Your task to perform on an android device: read, delete, or share a saved page in the chrome app Image 0: 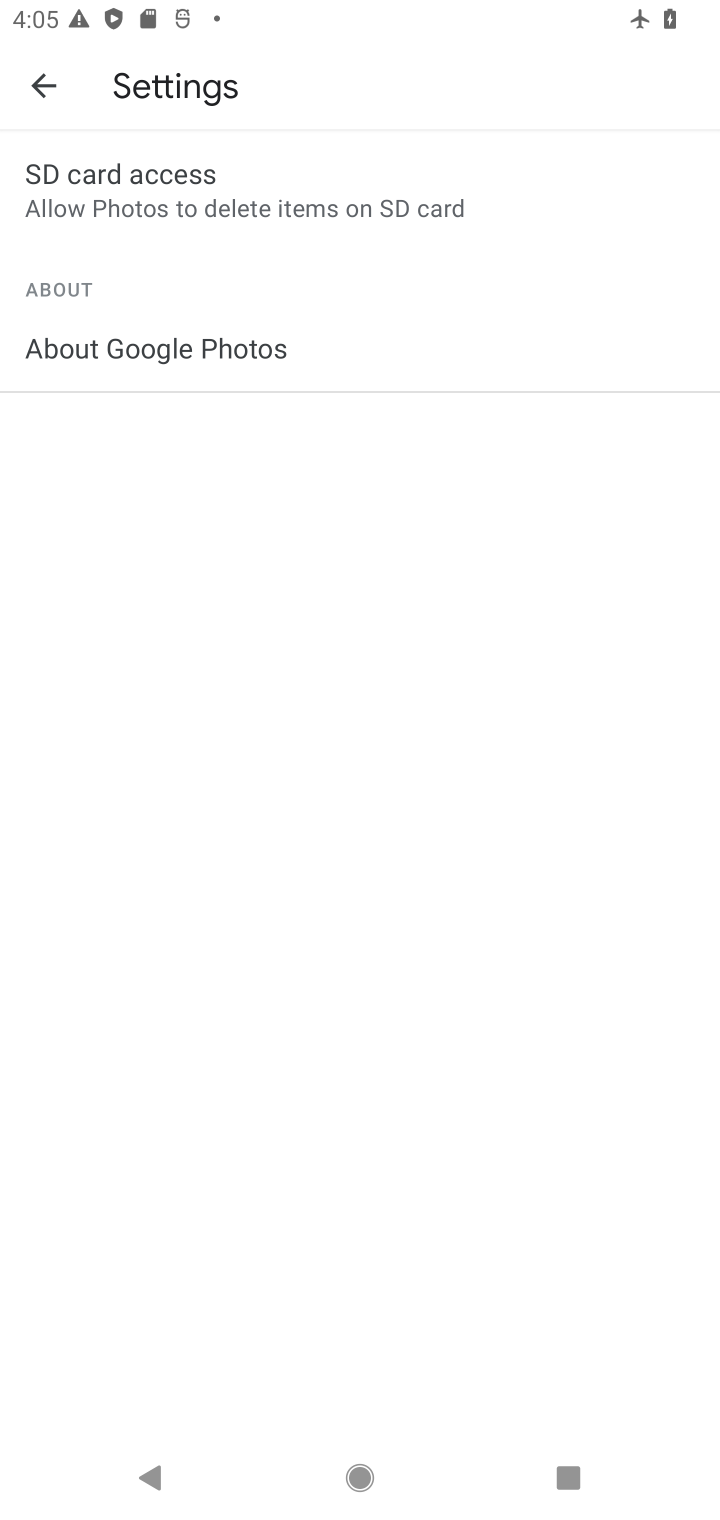
Step 0: press home button
Your task to perform on an android device: read, delete, or share a saved page in the chrome app Image 1: 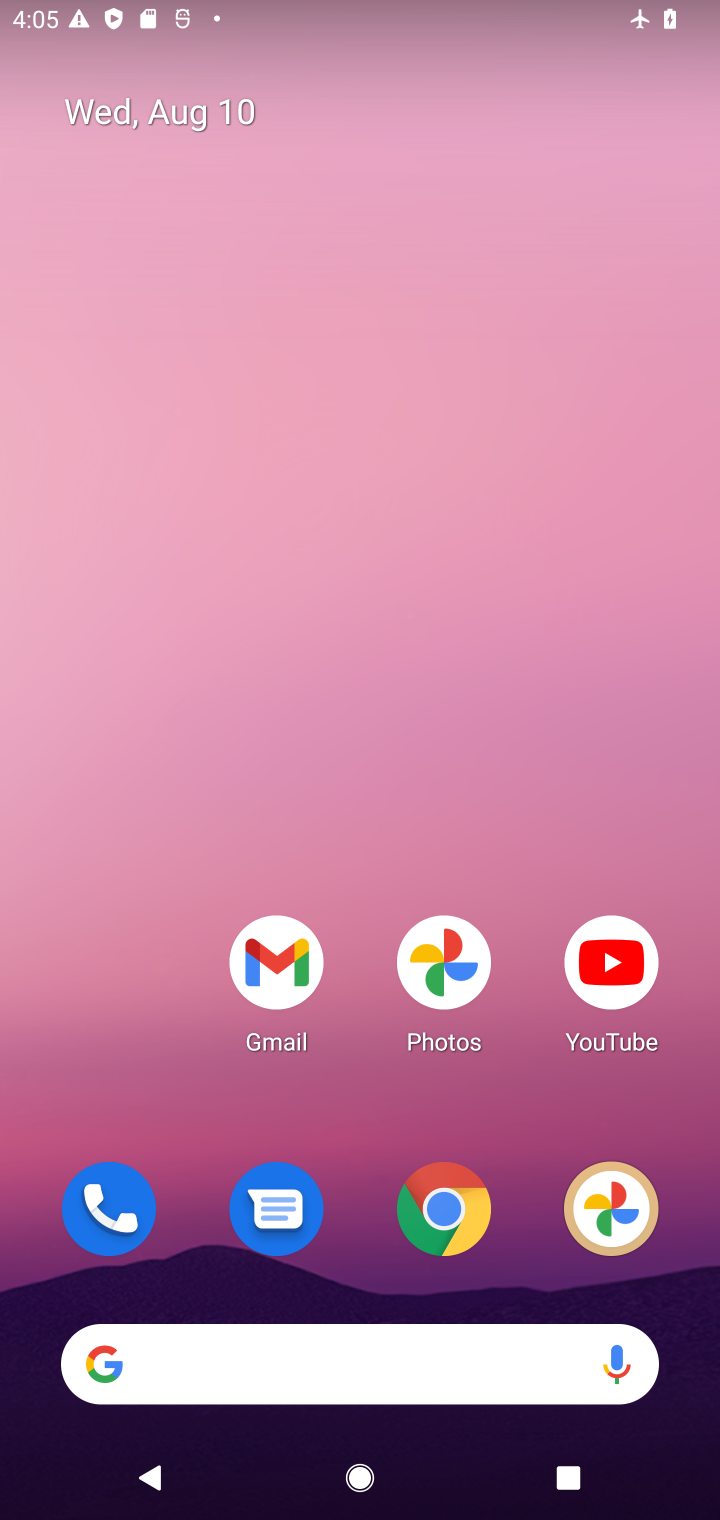
Step 1: click (435, 1211)
Your task to perform on an android device: read, delete, or share a saved page in the chrome app Image 2: 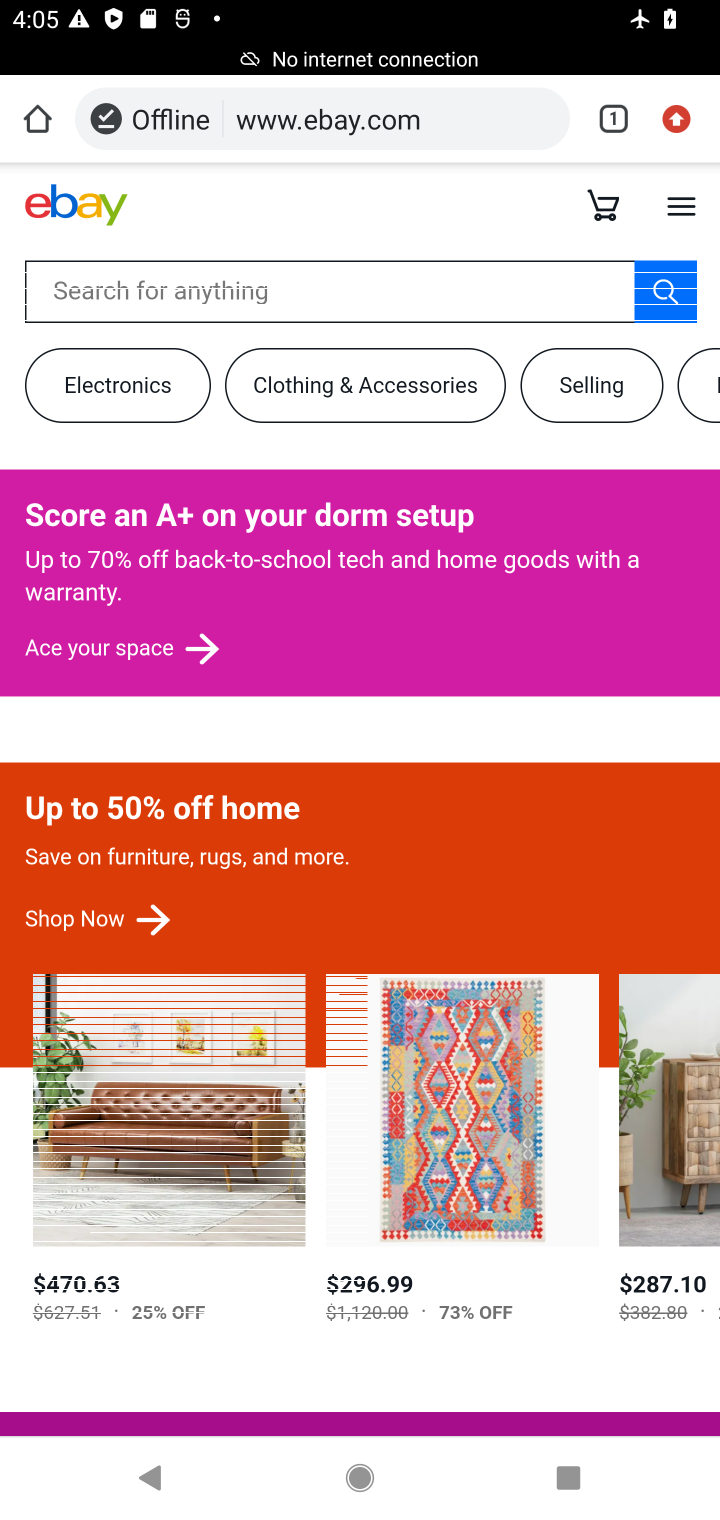
Step 2: click (686, 81)
Your task to perform on an android device: read, delete, or share a saved page in the chrome app Image 3: 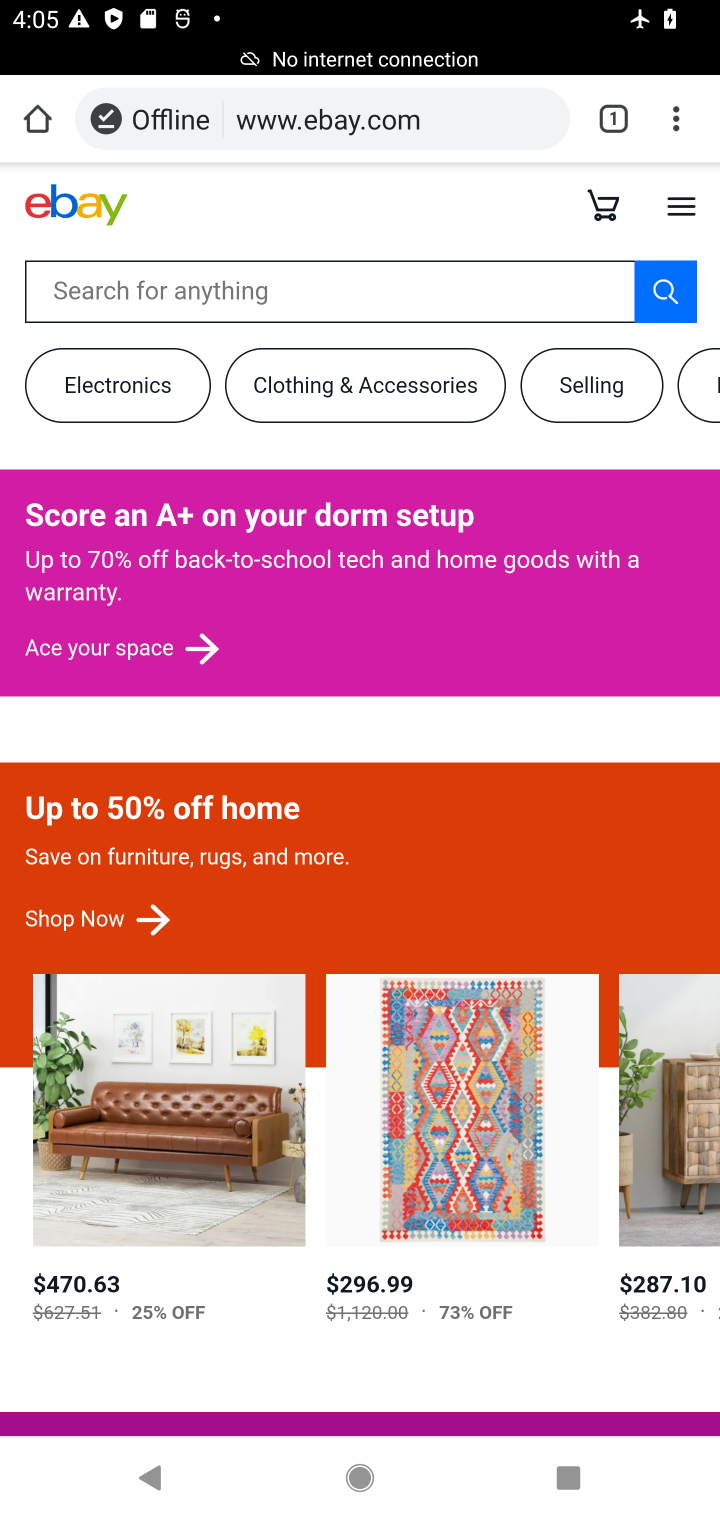
Step 3: click (663, 128)
Your task to perform on an android device: read, delete, or share a saved page in the chrome app Image 4: 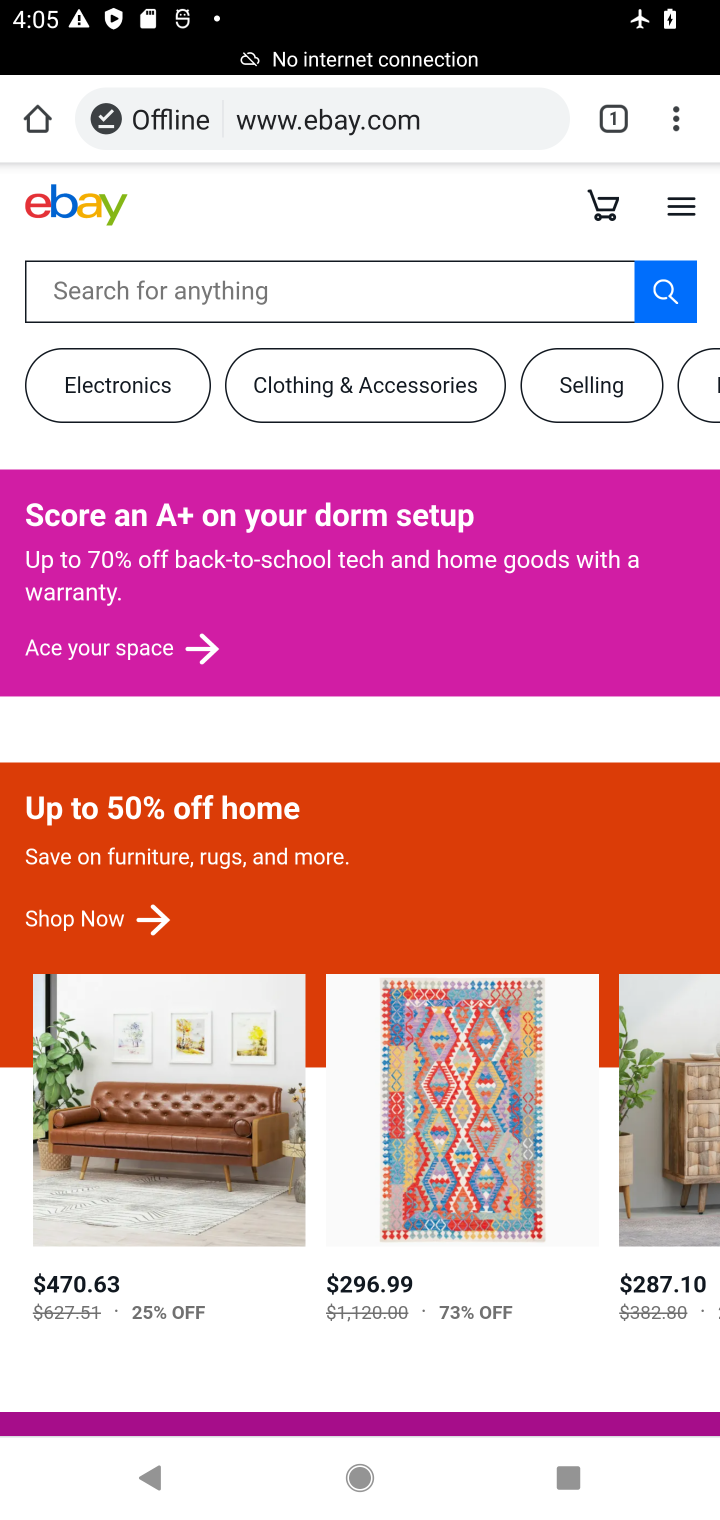
Step 4: click (683, 115)
Your task to perform on an android device: read, delete, or share a saved page in the chrome app Image 5: 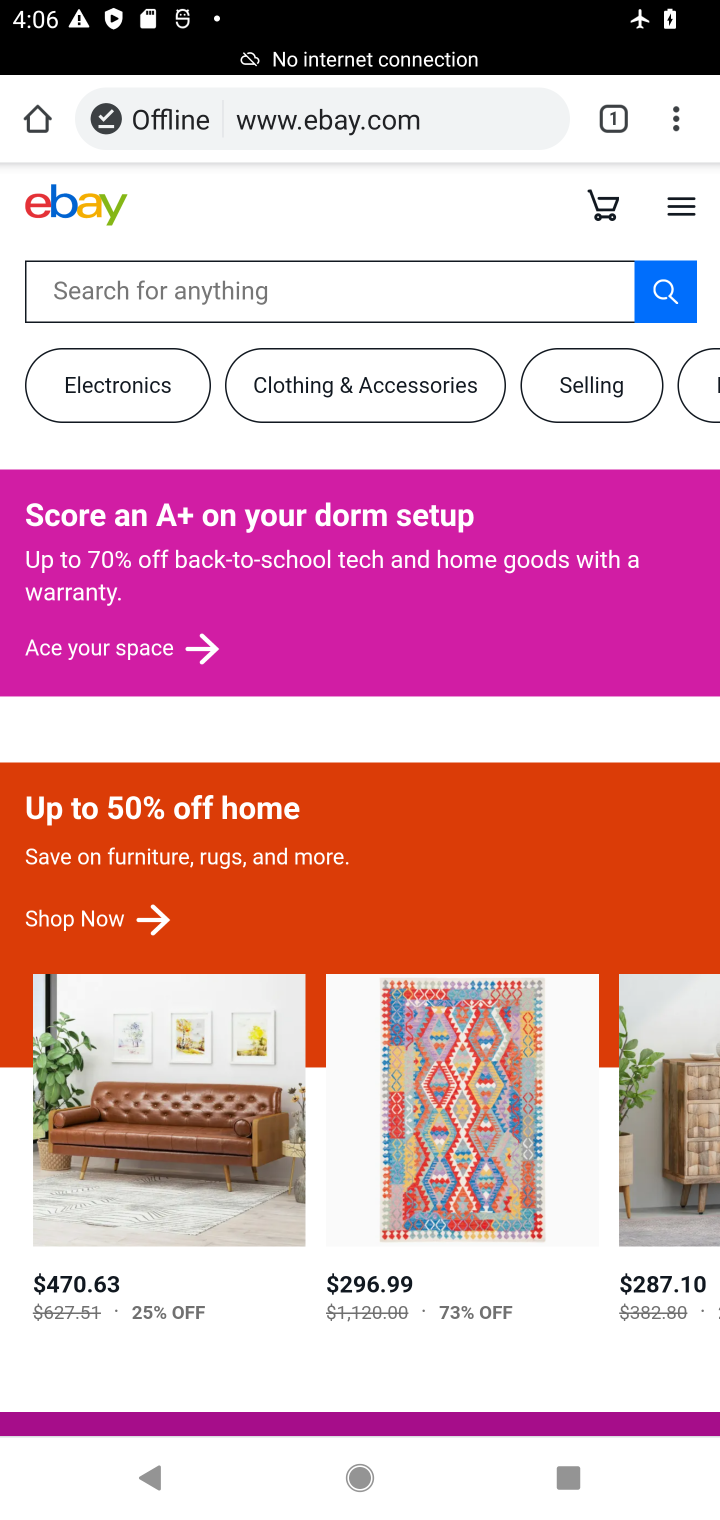
Step 5: click (683, 115)
Your task to perform on an android device: read, delete, or share a saved page in the chrome app Image 6: 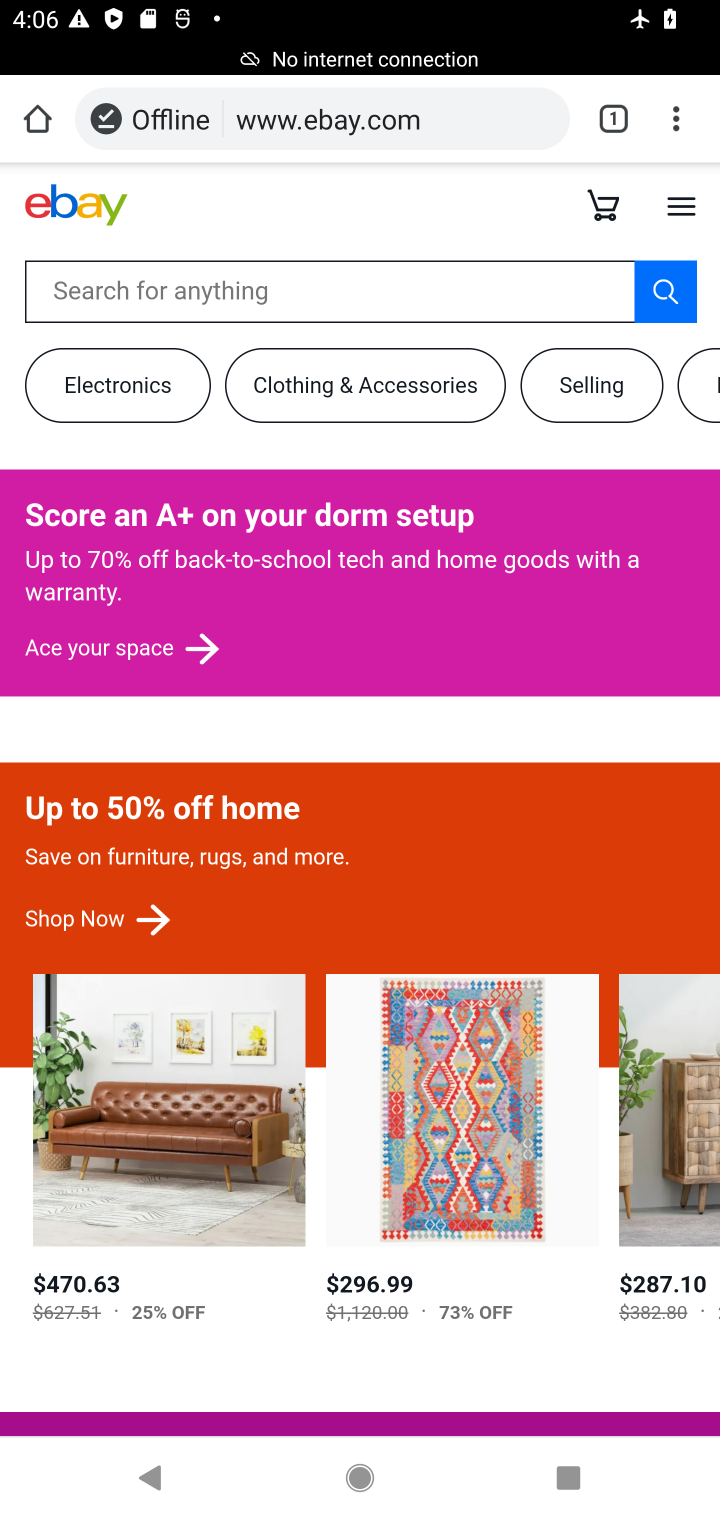
Step 6: click (664, 98)
Your task to perform on an android device: read, delete, or share a saved page in the chrome app Image 7: 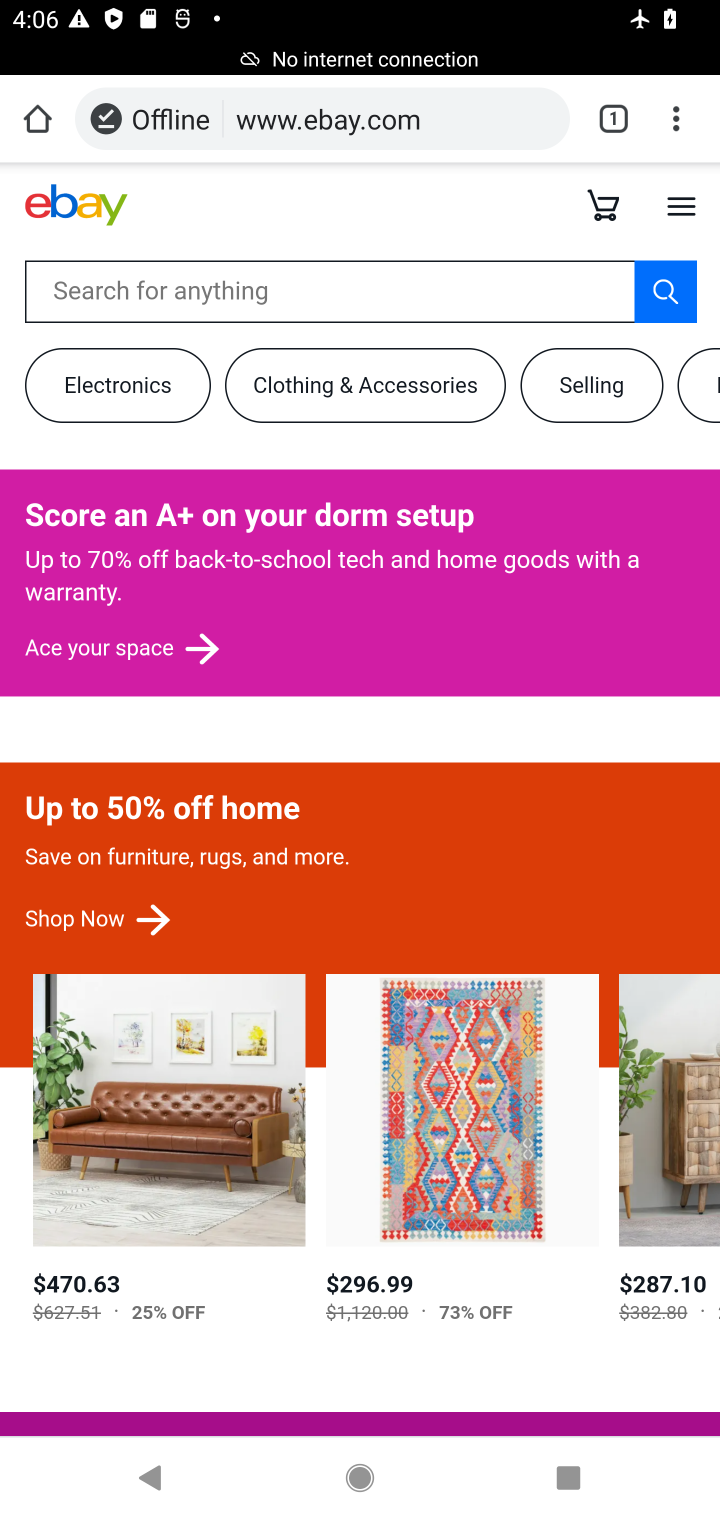
Step 7: click (664, 138)
Your task to perform on an android device: read, delete, or share a saved page in the chrome app Image 8: 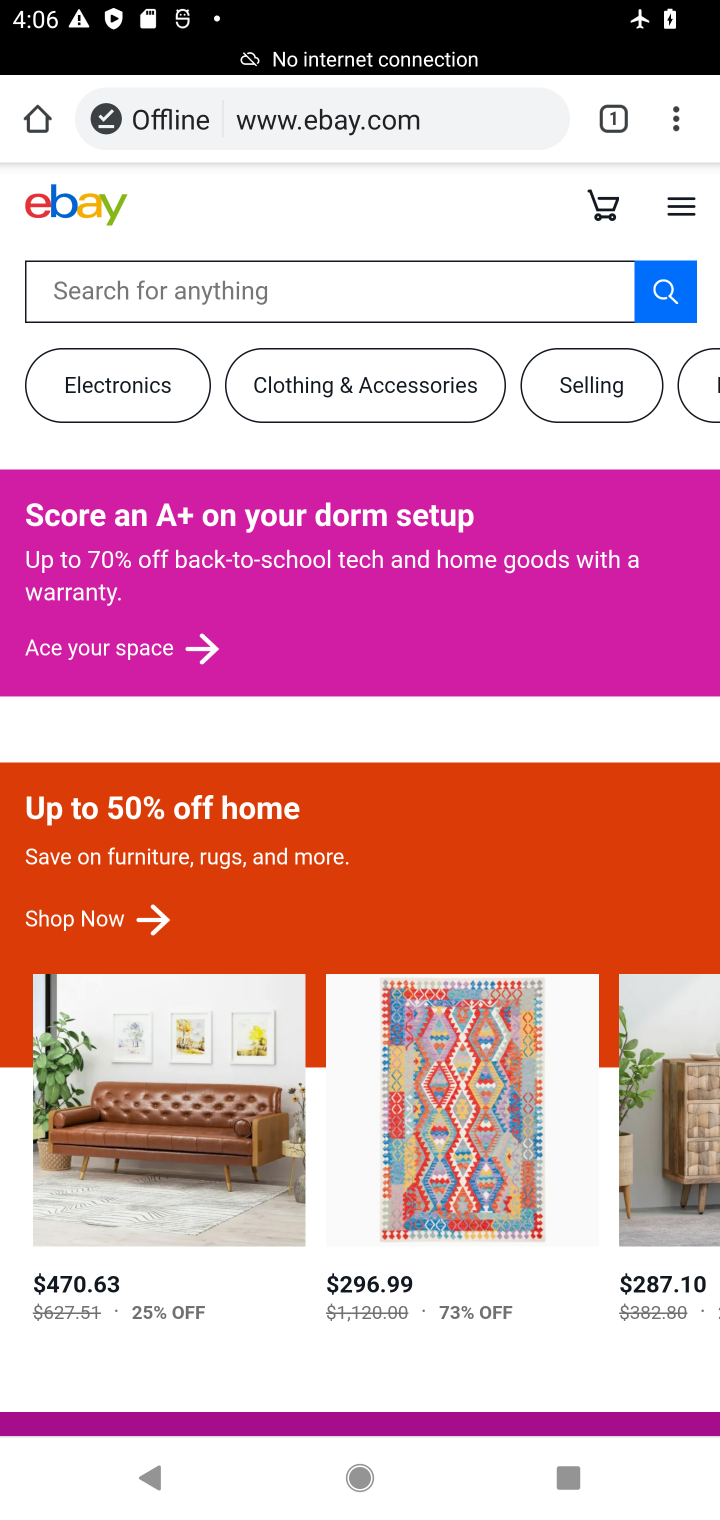
Step 8: click (661, 132)
Your task to perform on an android device: read, delete, or share a saved page in the chrome app Image 9: 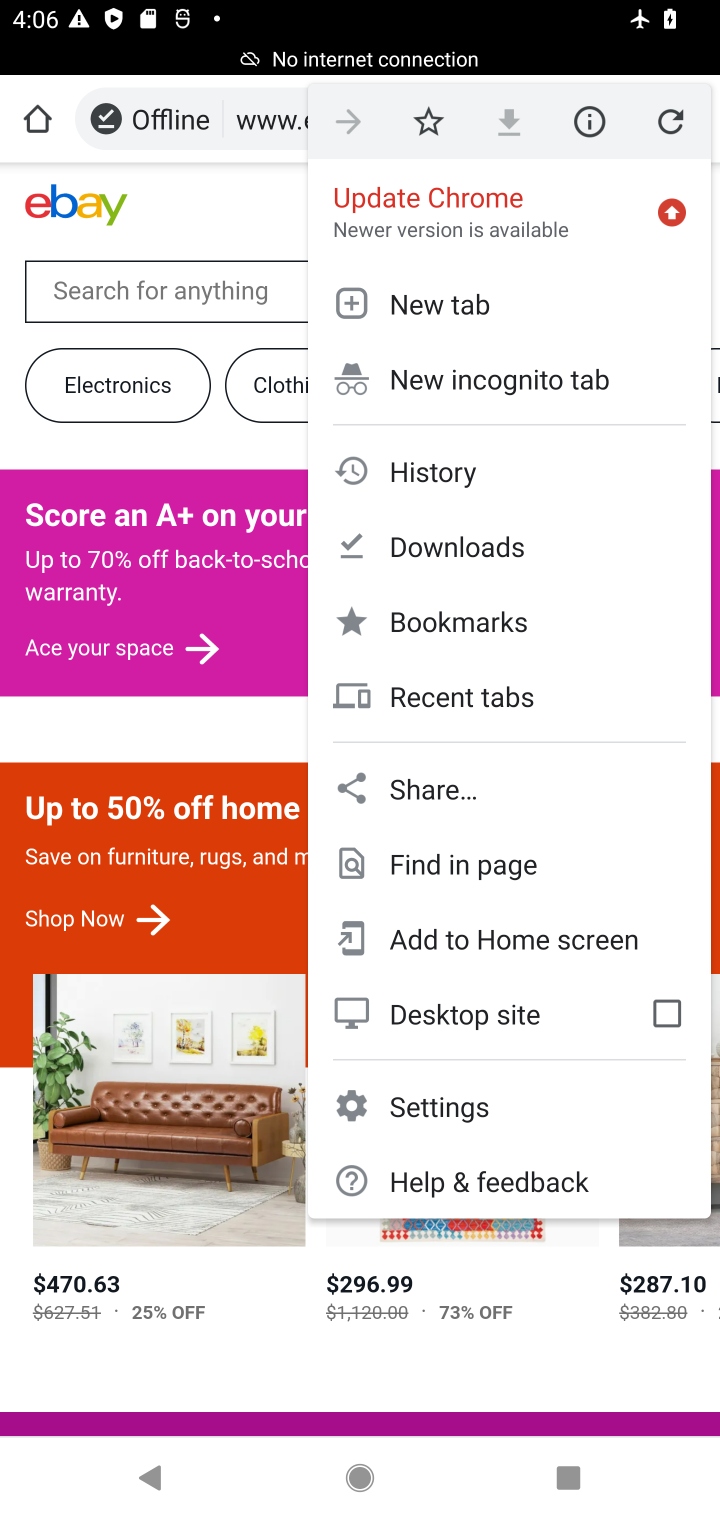
Step 9: click (513, 562)
Your task to perform on an android device: read, delete, or share a saved page in the chrome app Image 10: 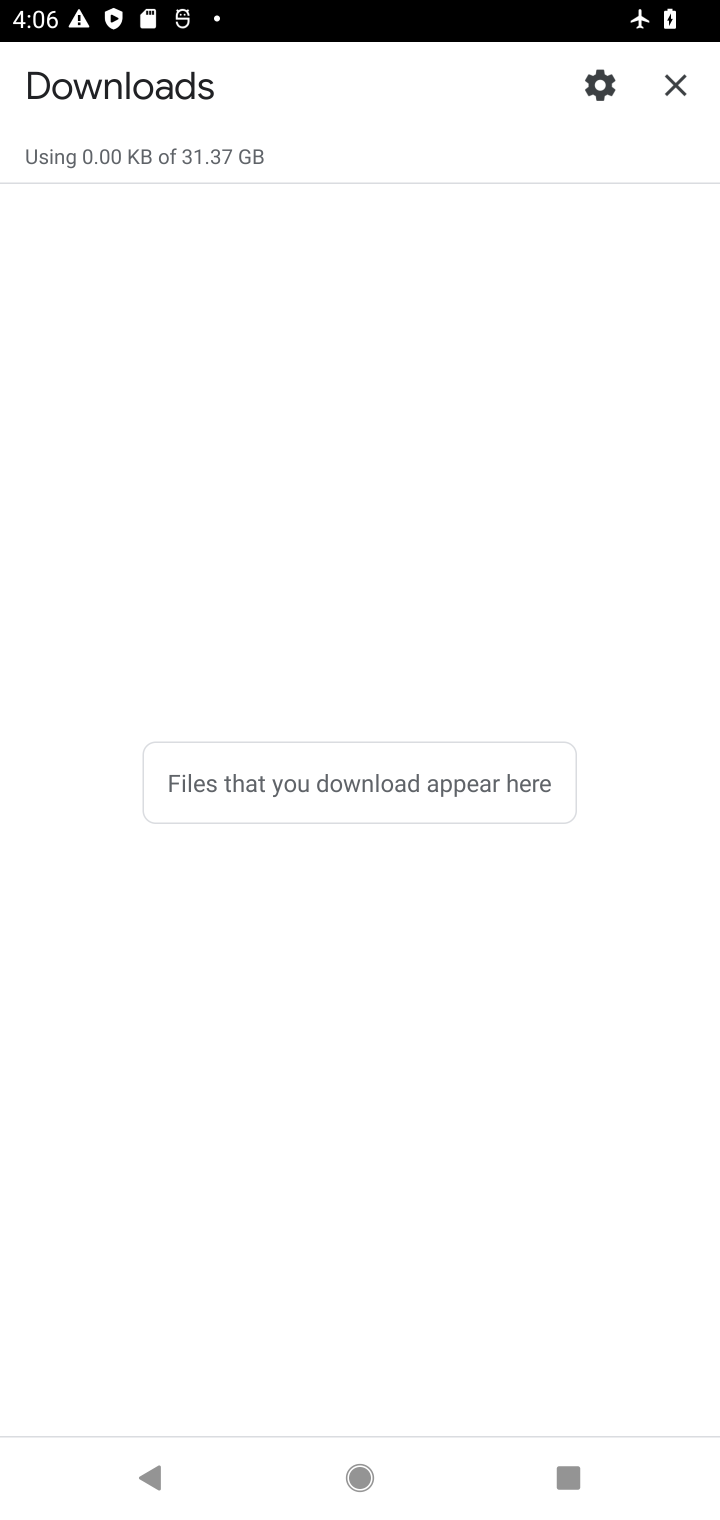
Step 10: task complete